Your task to perform on an android device: Open Youtube and go to the subscriptions tab Image 0: 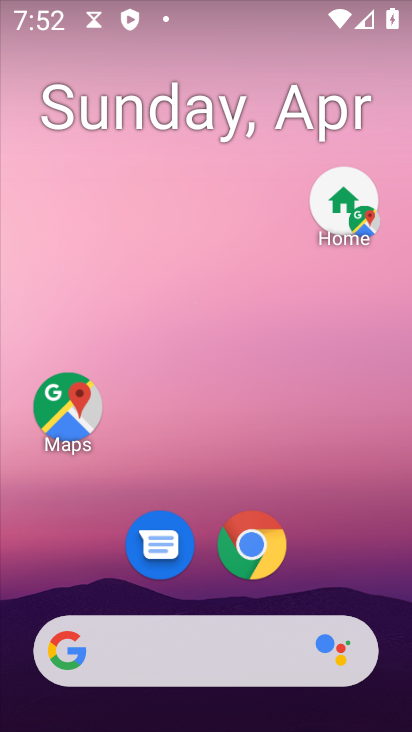
Step 0: drag from (347, 588) to (325, 190)
Your task to perform on an android device: Open Youtube and go to the subscriptions tab Image 1: 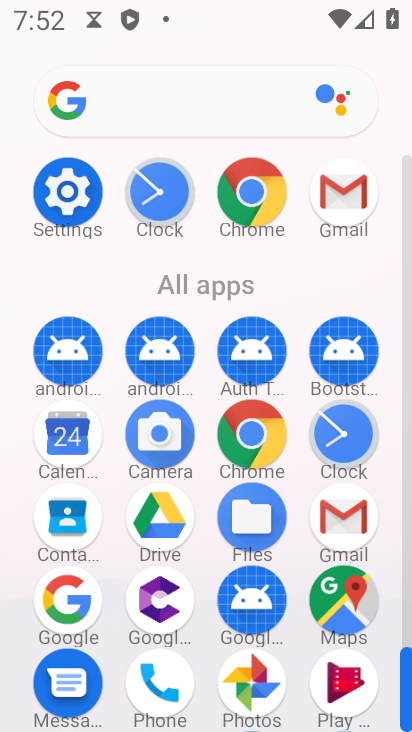
Step 1: drag from (295, 628) to (324, 64)
Your task to perform on an android device: Open Youtube and go to the subscriptions tab Image 2: 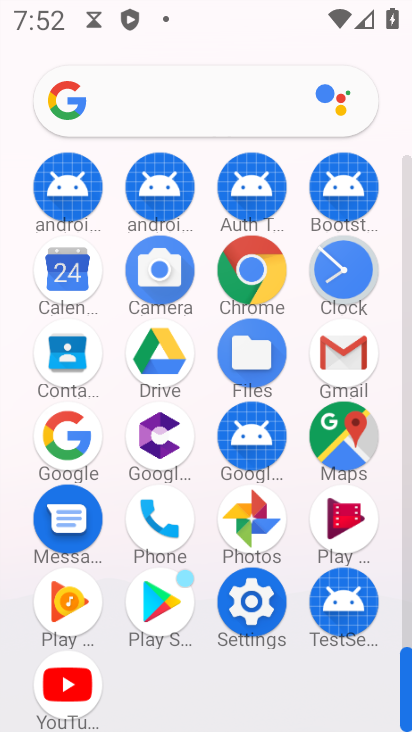
Step 2: click (49, 663)
Your task to perform on an android device: Open Youtube and go to the subscriptions tab Image 3: 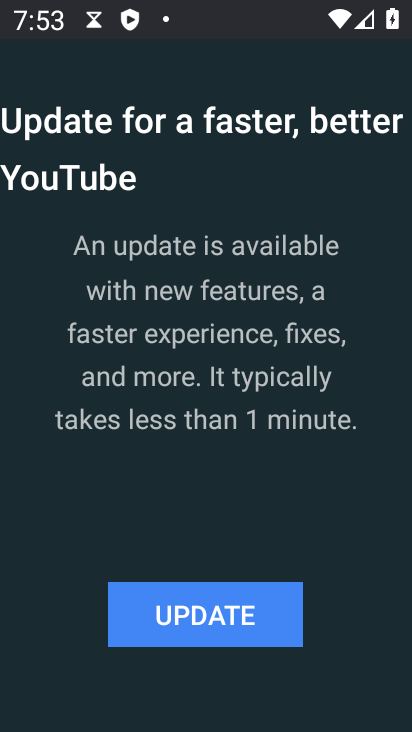
Step 3: task complete